Your task to perform on an android device: uninstall "DoorDash - Food Delivery" Image 0: 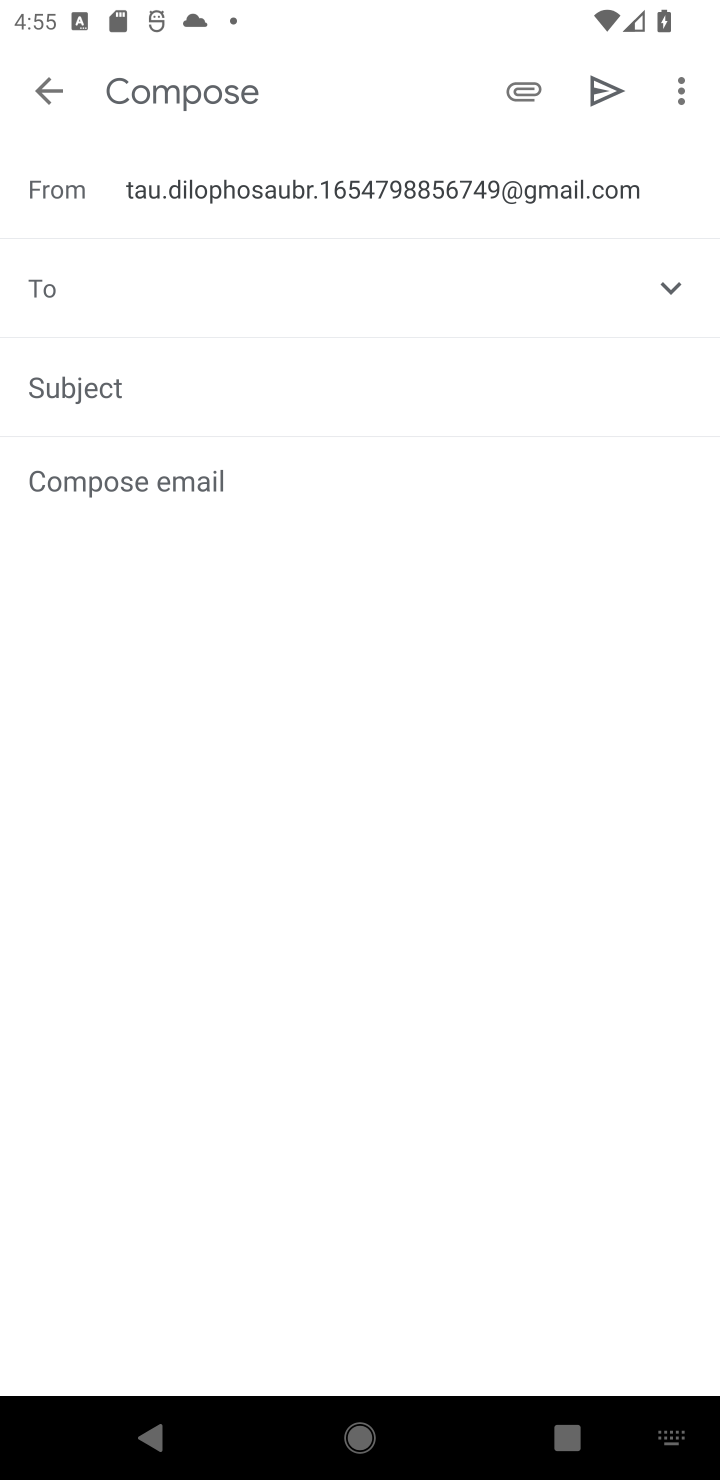
Step 0: press home button
Your task to perform on an android device: uninstall "DoorDash - Food Delivery" Image 1: 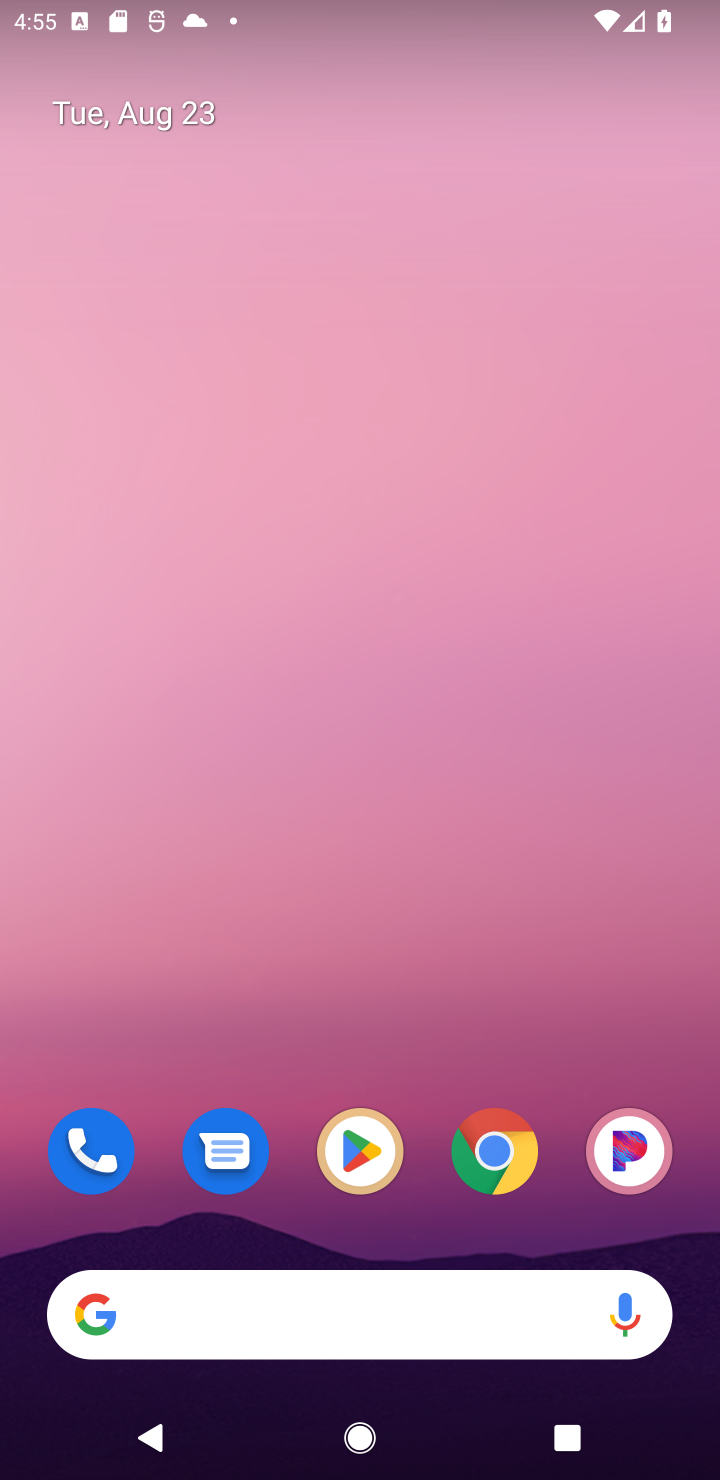
Step 1: click (356, 1144)
Your task to perform on an android device: uninstall "DoorDash - Food Delivery" Image 2: 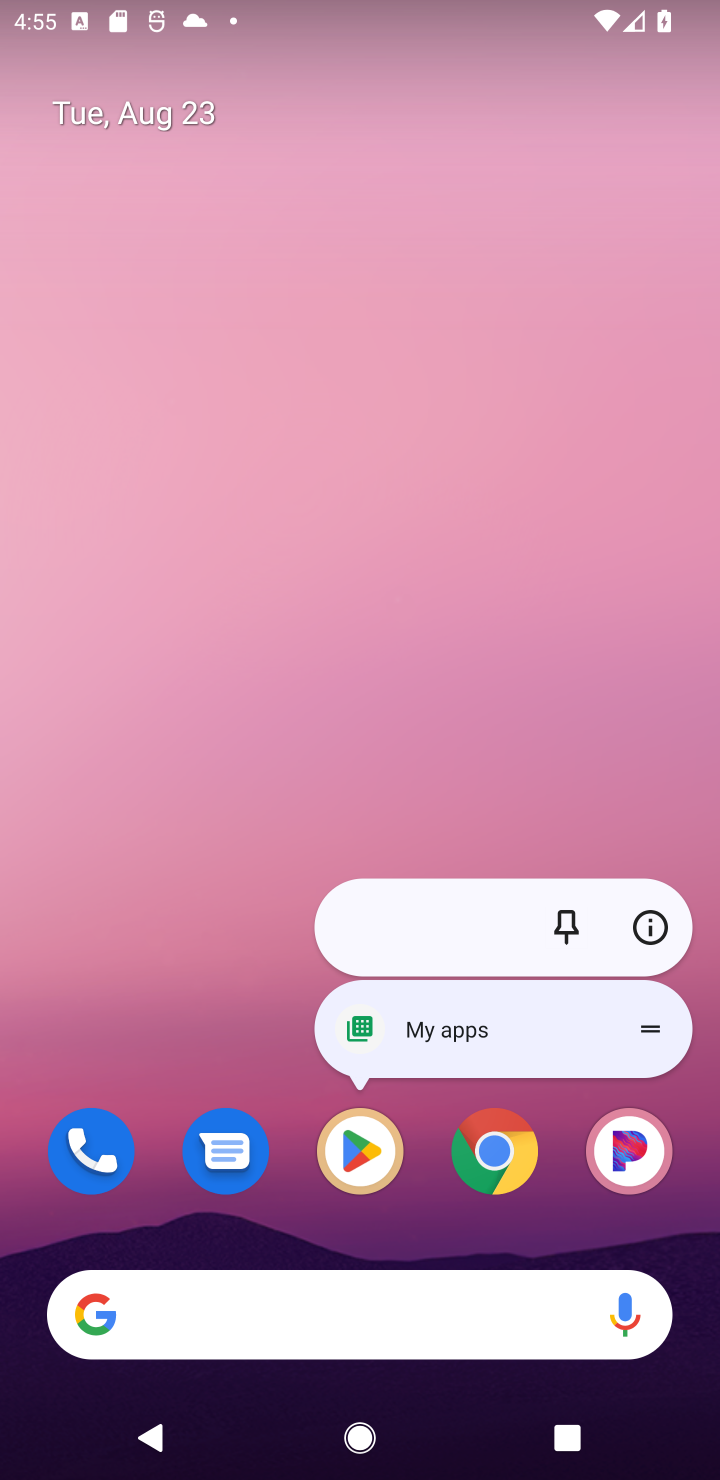
Step 2: click (356, 1148)
Your task to perform on an android device: uninstall "DoorDash - Food Delivery" Image 3: 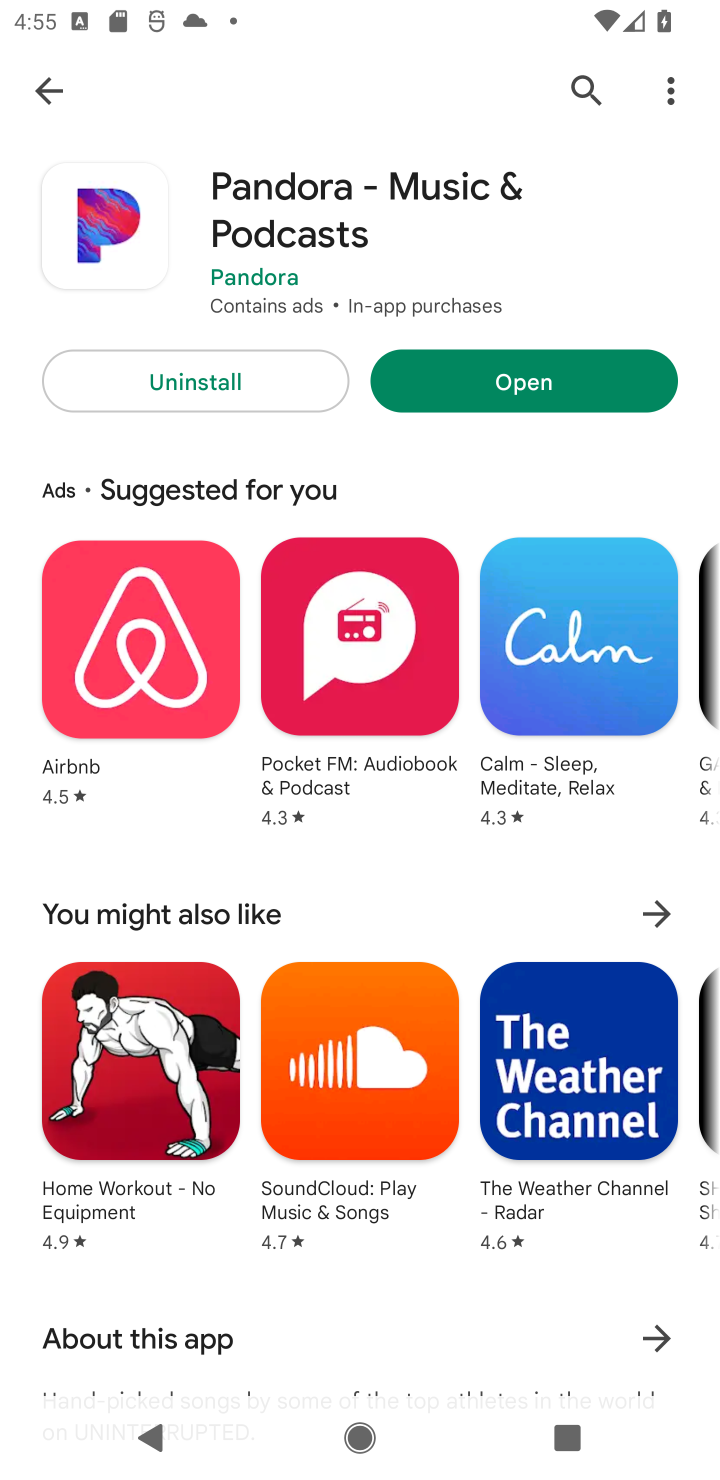
Step 3: click (356, 1159)
Your task to perform on an android device: uninstall "DoorDash - Food Delivery" Image 4: 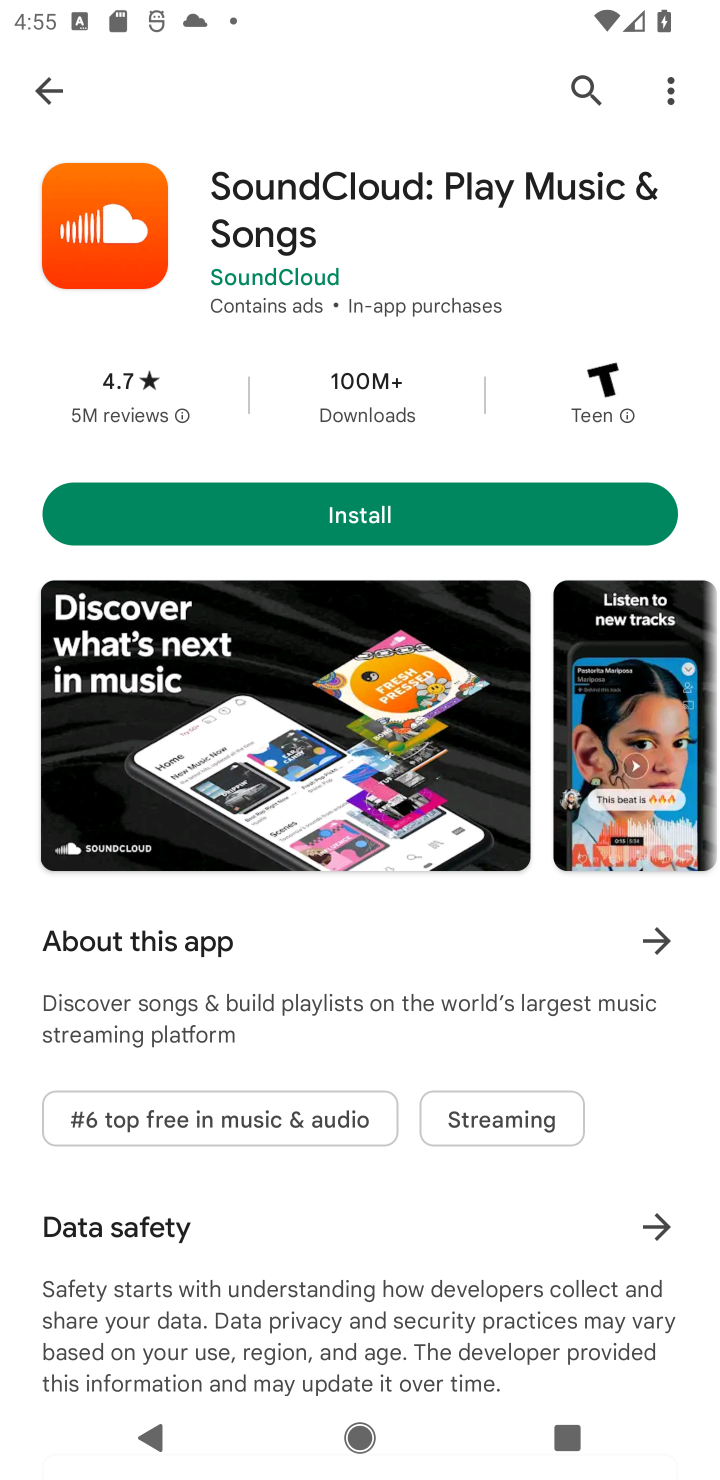
Step 4: click (584, 85)
Your task to perform on an android device: uninstall "DoorDash - Food Delivery" Image 5: 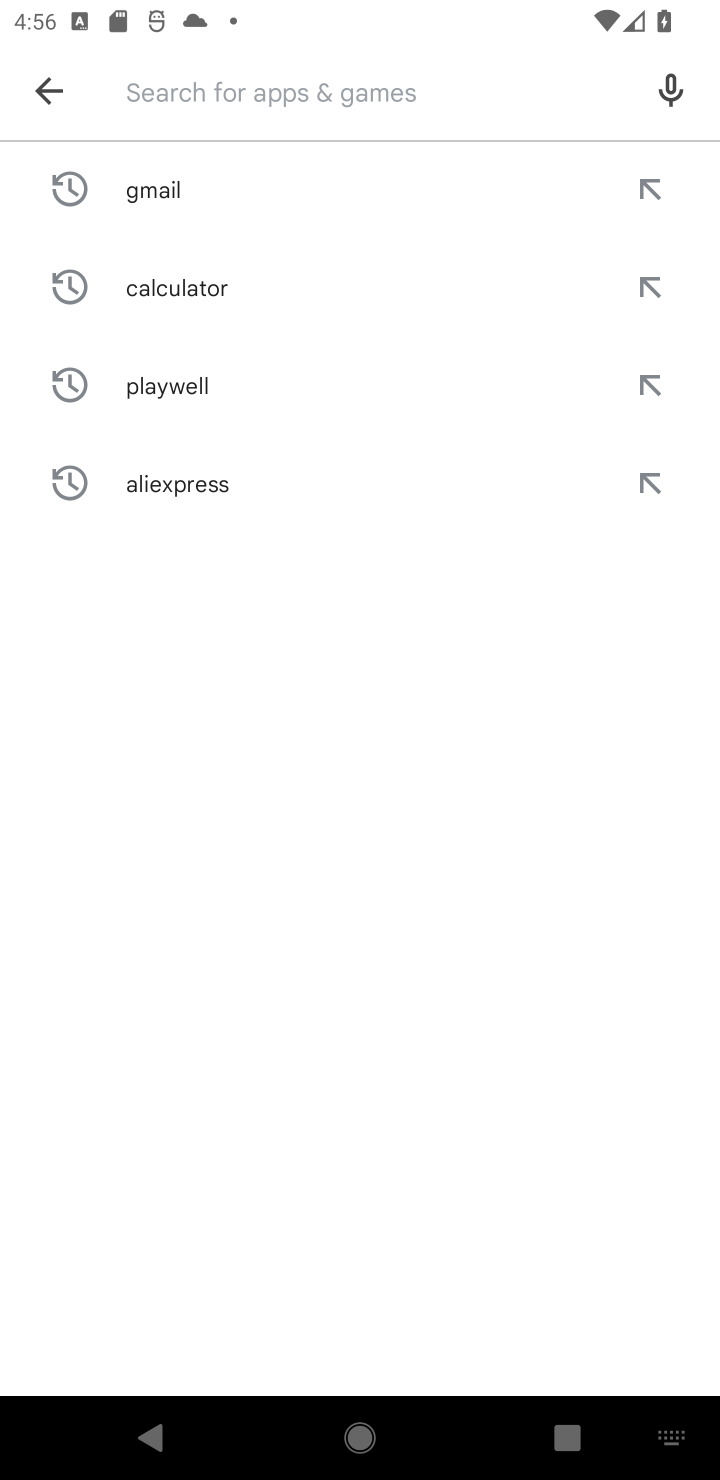
Step 5: type "DoorDash - Food Delivery"
Your task to perform on an android device: uninstall "DoorDash - Food Delivery" Image 6: 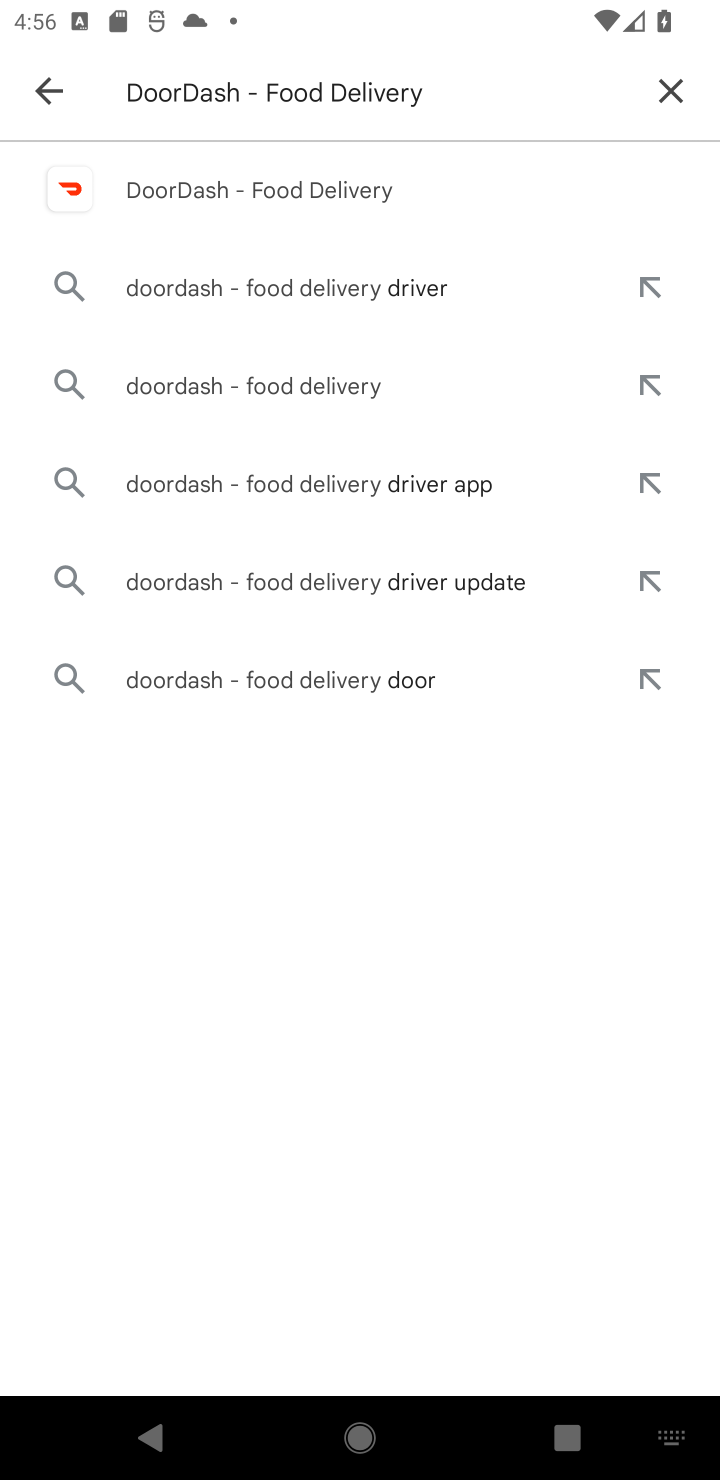
Step 6: click (247, 180)
Your task to perform on an android device: uninstall "DoorDash - Food Delivery" Image 7: 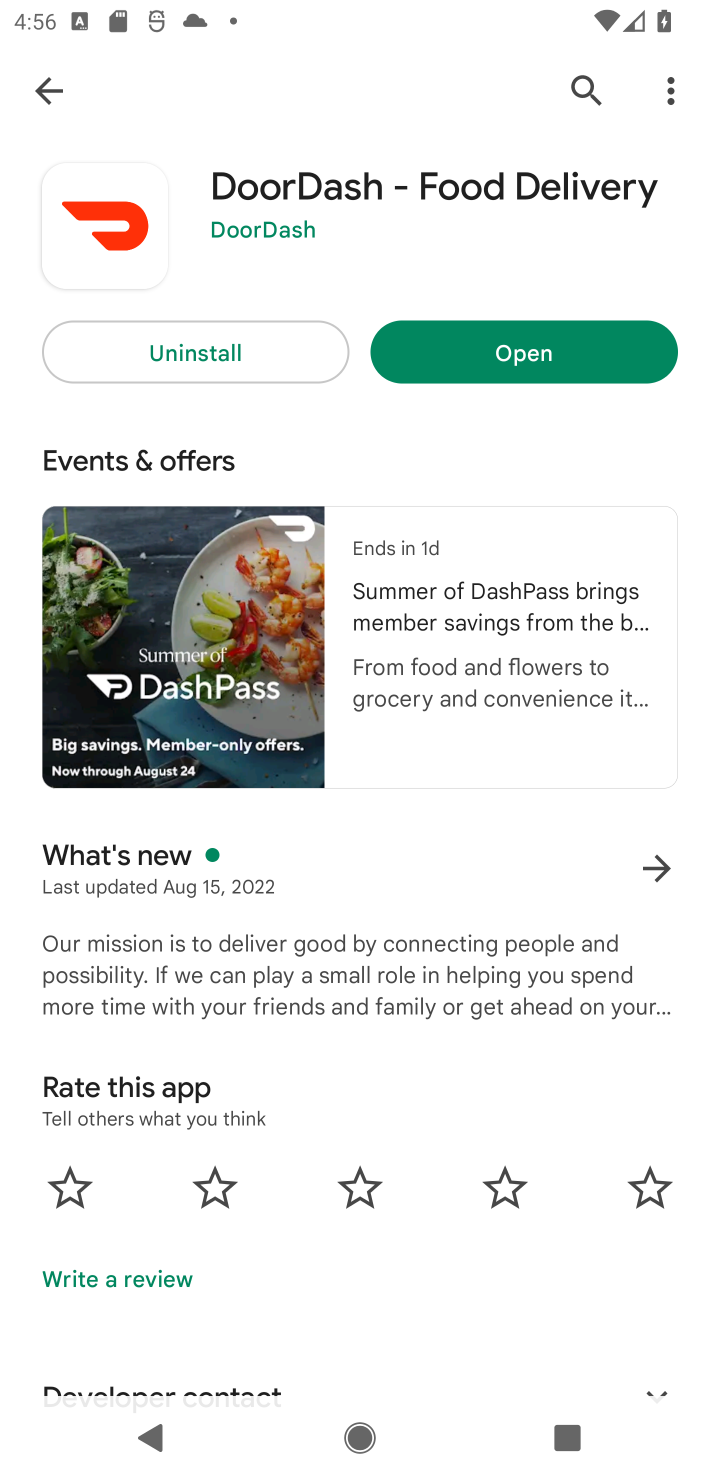
Step 7: click (200, 344)
Your task to perform on an android device: uninstall "DoorDash - Food Delivery" Image 8: 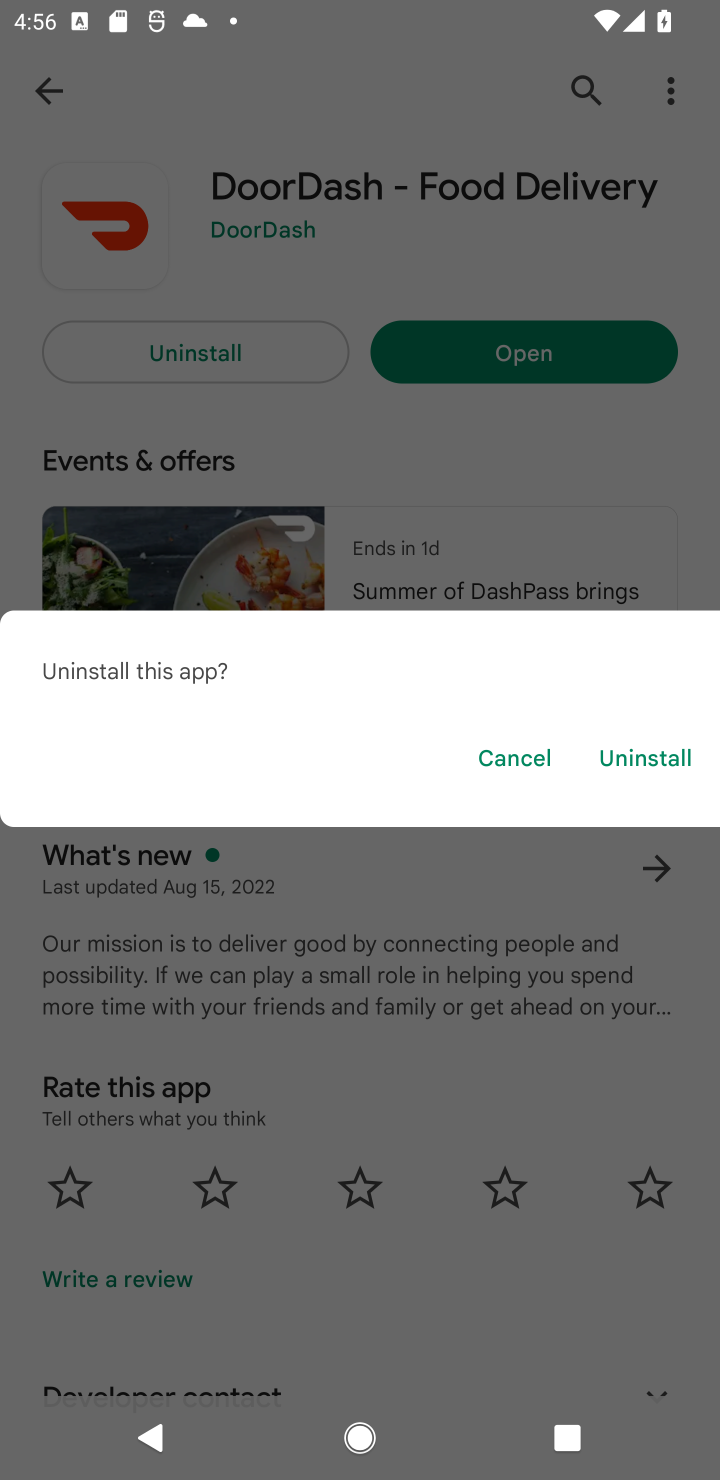
Step 8: click (669, 766)
Your task to perform on an android device: uninstall "DoorDash - Food Delivery" Image 9: 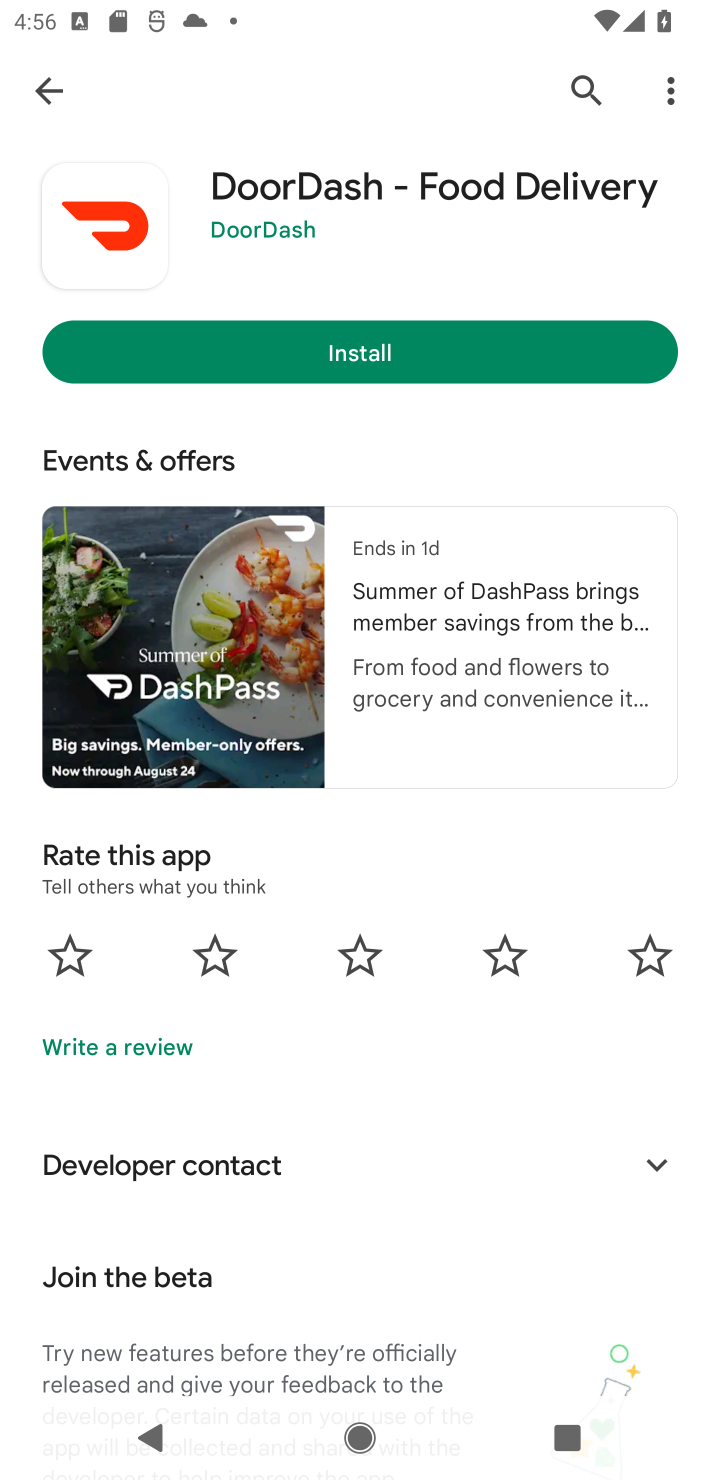
Step 9: task complete